Your task to perform on an android device: turn on the 12-hour format for clock Image 0: 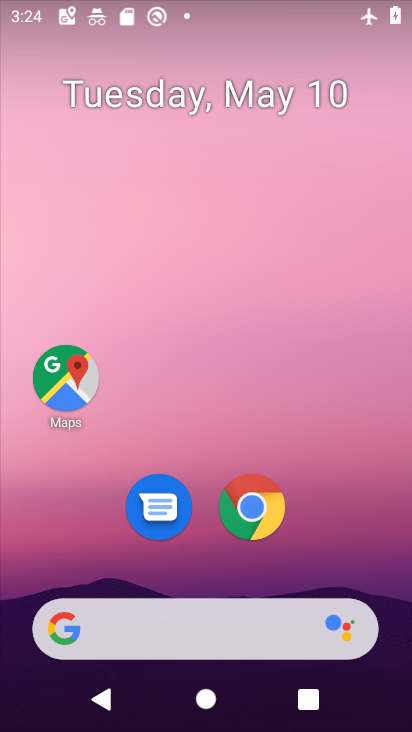
Step 0: drag from (221, 610) to (223, 133)
Your task to perform on an android device: turn on the 12-hour format for clock Image 1: 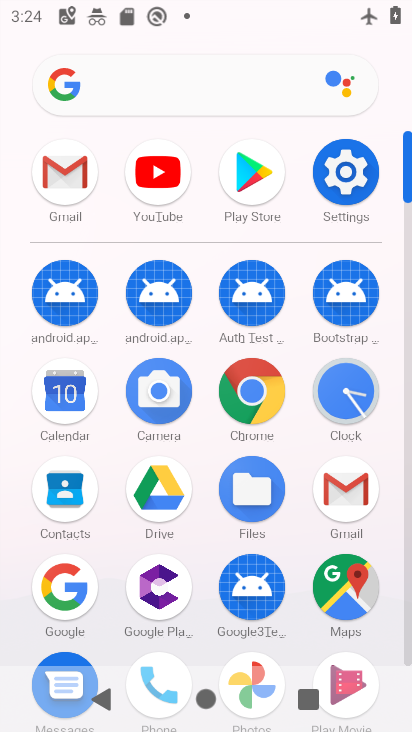
Step 1: click (342, 172)
Your task to perform on an android device: turn on the 12-hour format for clock Image 2: 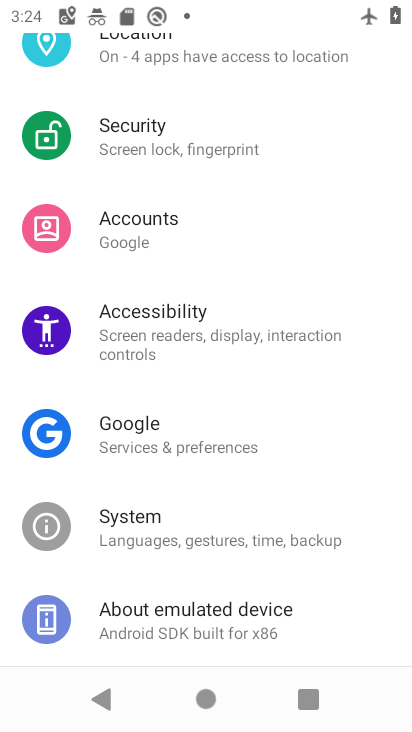
Step 2: press home button
Your task to perform on an android device: turn on the 12-hour format for clock Image 3: 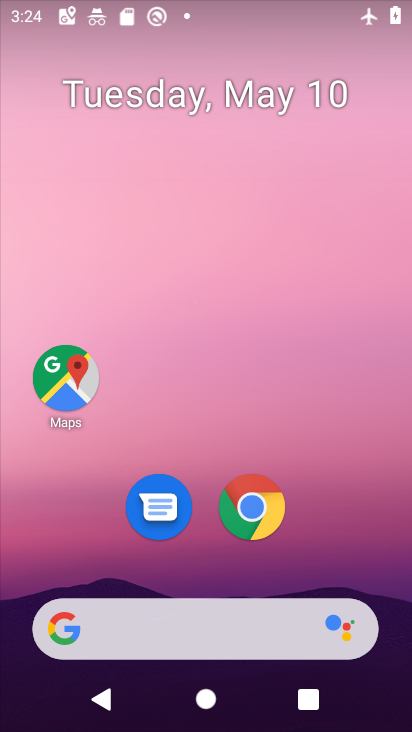
Step 3: drag from (179, 525) to (179, 190)
Your task to perform on an android device: turn on the 12-hour format for clock Image 4: 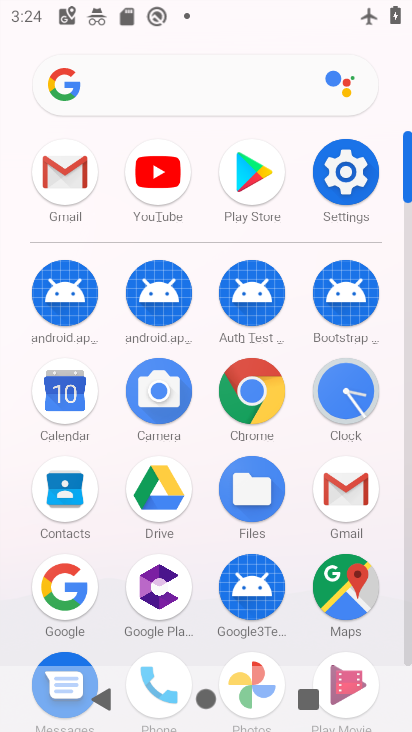
Step 4: click (345, 395)
Your task to perform on an android device: turn on the 12-hour format for clock Image 5: 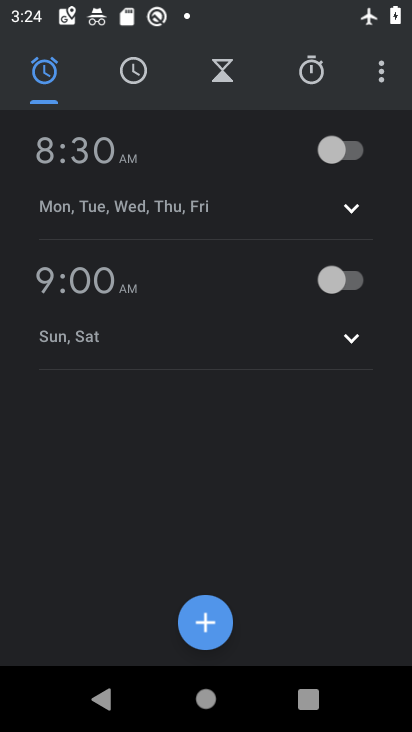
Step 5: click (379, 76)
Your task to perform on an android device: turn on the 12-hour format for clock Image 6: 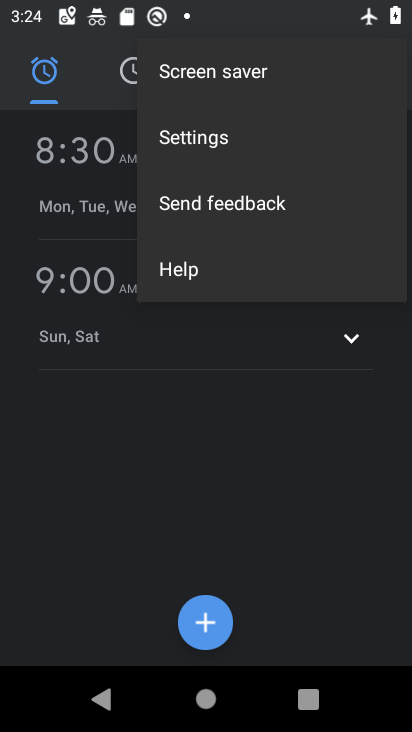
Step 6: click (189, 147)
Your task to perform on an android device: turn on the 12-hour format for clock Image 7: 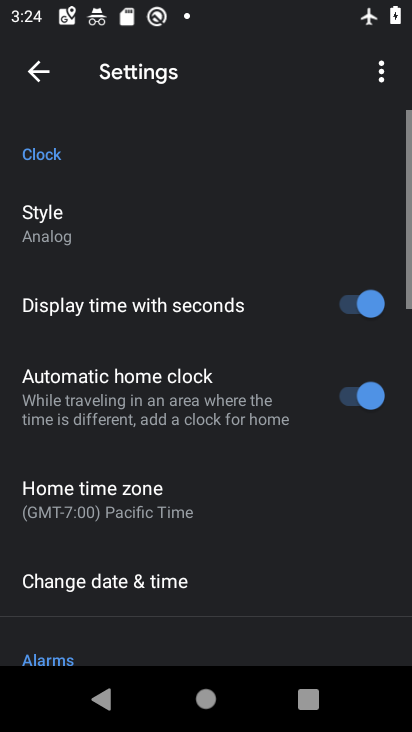
Step 7: click (114, 584)
Your task to perform on an android device: turn on the 12-hour format for clock Image 8: 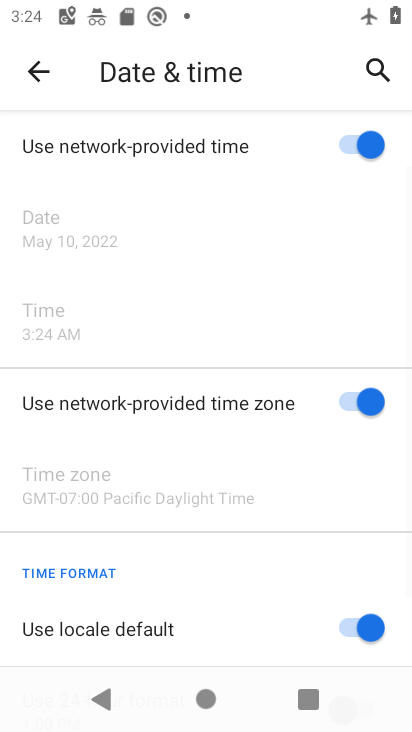
Step 8: task complete